Your task to perform on an android device: Go to display settings Image 0: 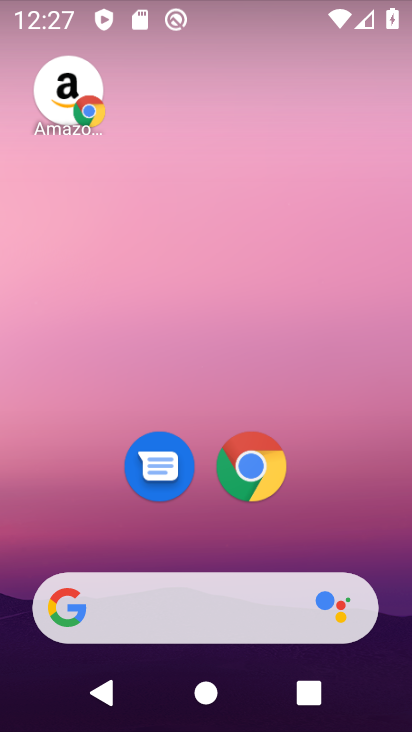
Step 0: drag from (330, 496) to (277, 138)
Your task to perform on an android device: Go to display settings Image 1: 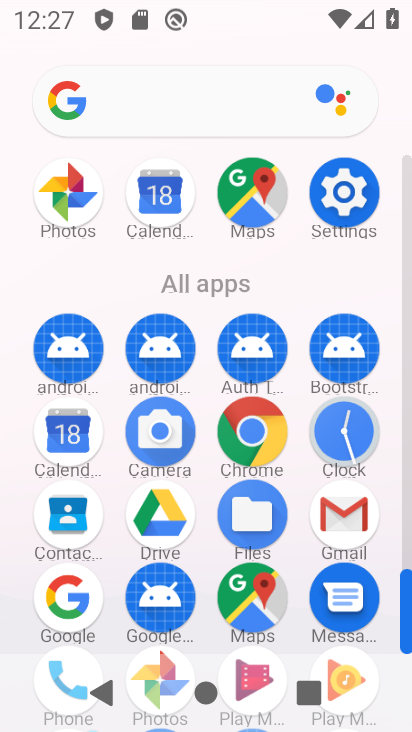
Step 1: click (347, 192)
Your task to perform on an android device: Go to display settings Image 2: 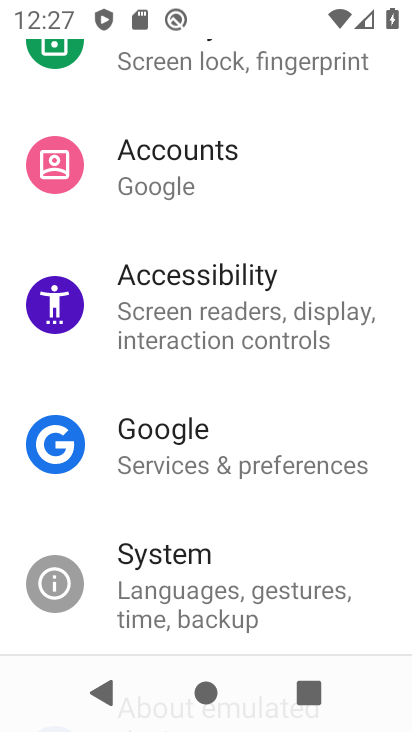
Step 2: drag from (205, 228) to (216, 417)
Your task to perform on an android device: Go to display settings Image 3: 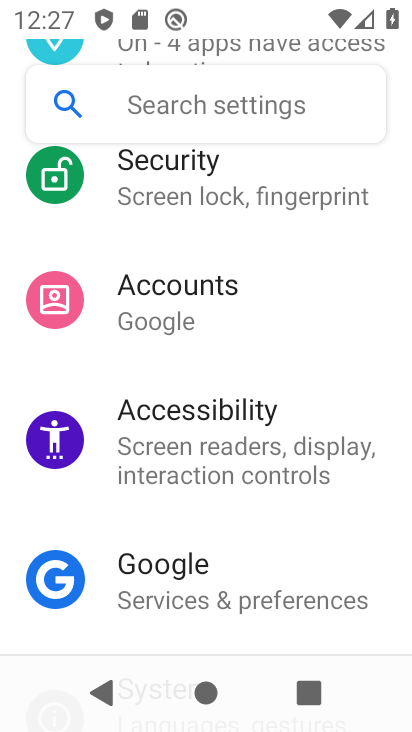
Step 3: drag from (222, 245) to (245, 494)
Your task to perform on an android device: Go to display settings Image 4: 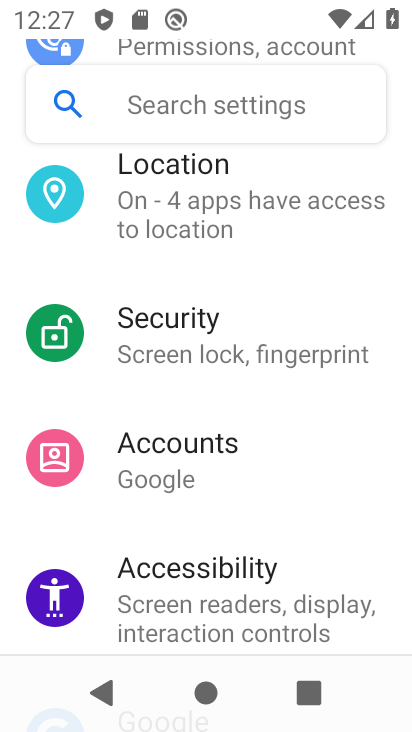
Step 4: drag from (261, 308) to (255, 455)
Your task to perform on an android device: Go to display settings Image 5: 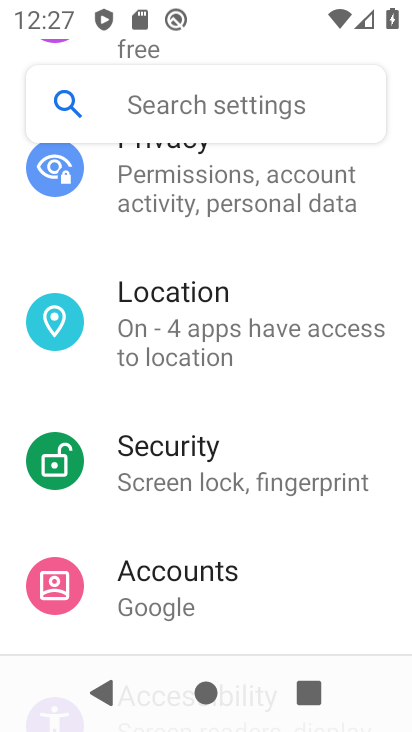
Step 5: drag from (245, 283) to (240, 437)
Your task to perform on an android device: Go to display settings Image 6: 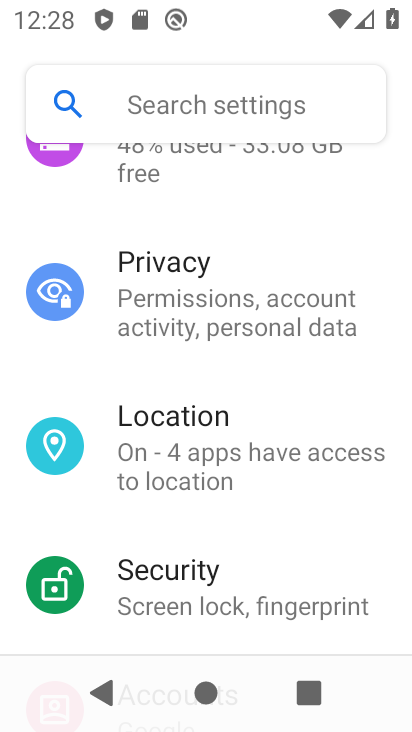
Step 6: drag from (240, 225) to (241, 403)
Your task to perform on an android device: Go to display settings Image 7: 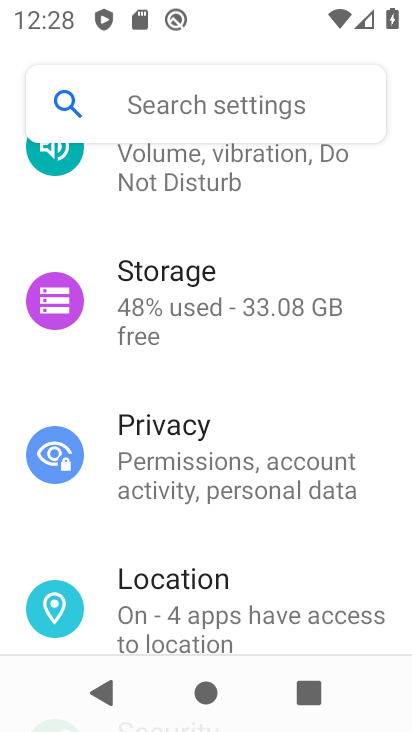
Step 7: drag from (251, 238) to (273, 413)
Your task to perform on an android device: Go to display settings Image 8: 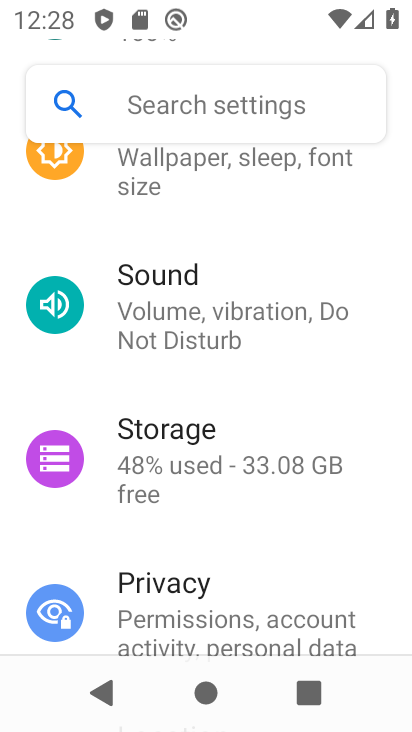
Step 8: click (158, 295)
Your task to perform on an android device: Go to display settings Image 9: 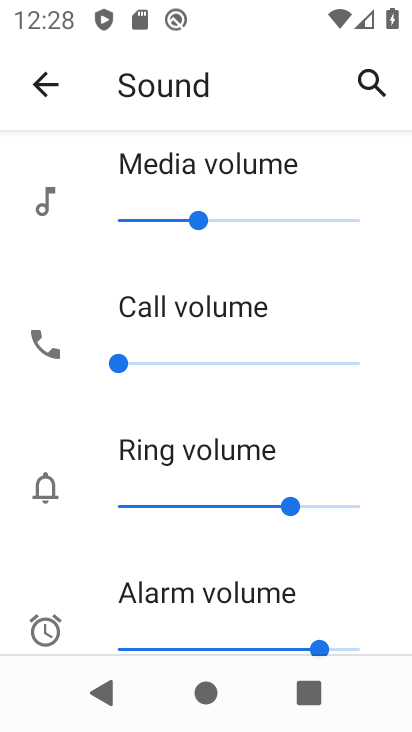
Step 9: task complete